Your task to perform on an android device: toggle notification dots Image 0: 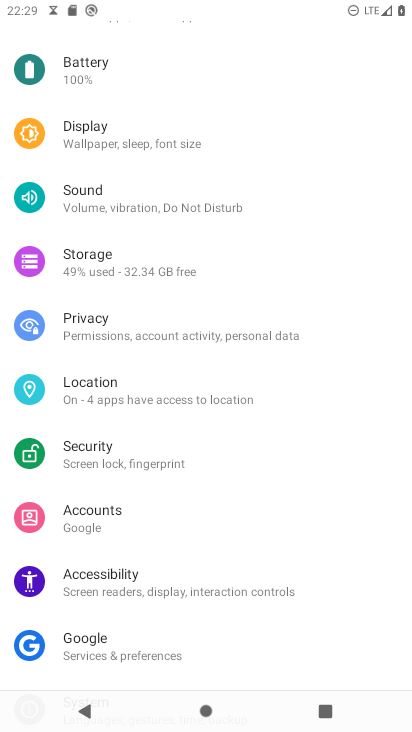
Step 0: press home button
Your task to perform on an android device: toggle notification dots Image 1: 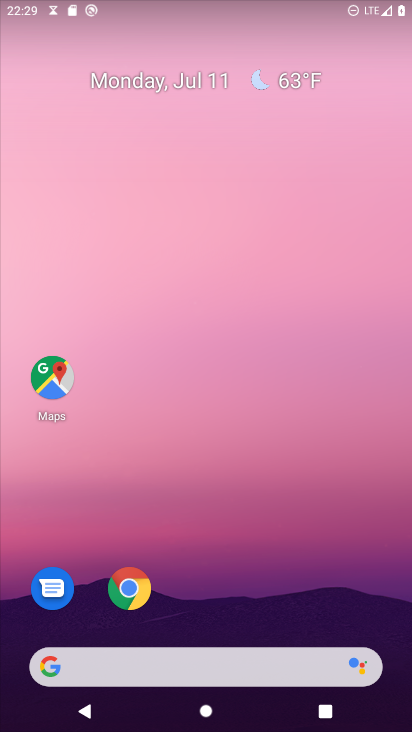
Step 1: drag from (256, 620) to (315, 120)
Your task to perform on an android device: toggle notification dots Image 2: 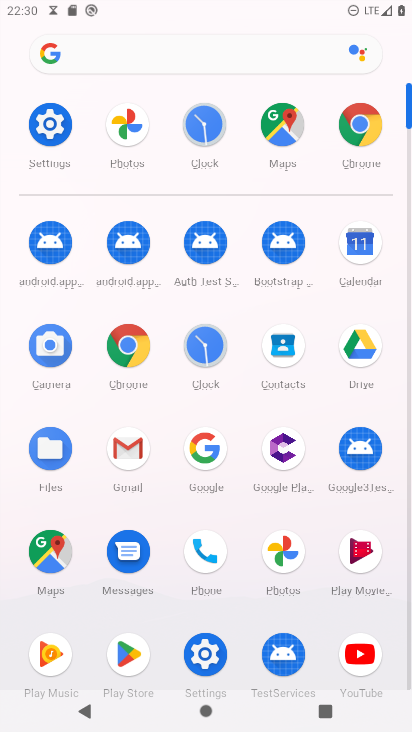
Step 2: click (48, 128)
Your task to perform on an android device: toggle notification dots Image 3: 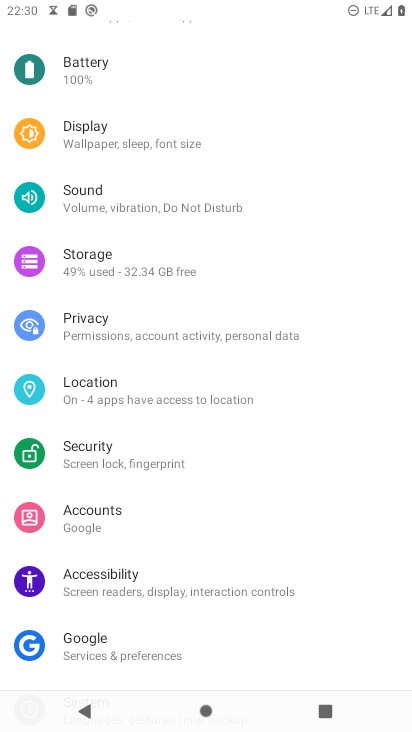
Step 3: drag from (291, 143) to (279, 620)
Your task to perform on an android device: toggle notification dots Image 4: 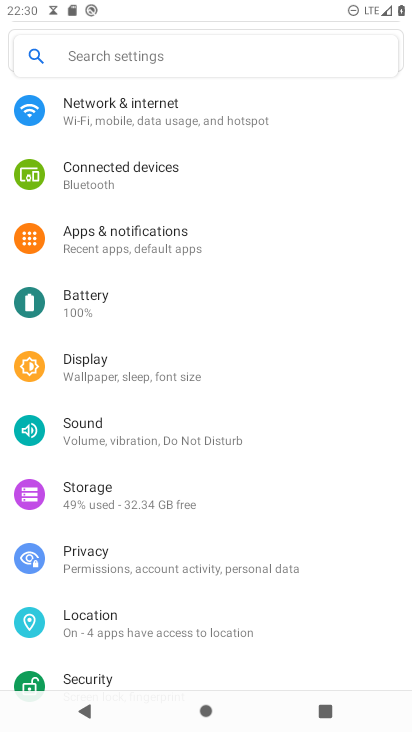
Step 4: click (134, 245)
Your task to perform on an android device: toggle notification dots Image 5: 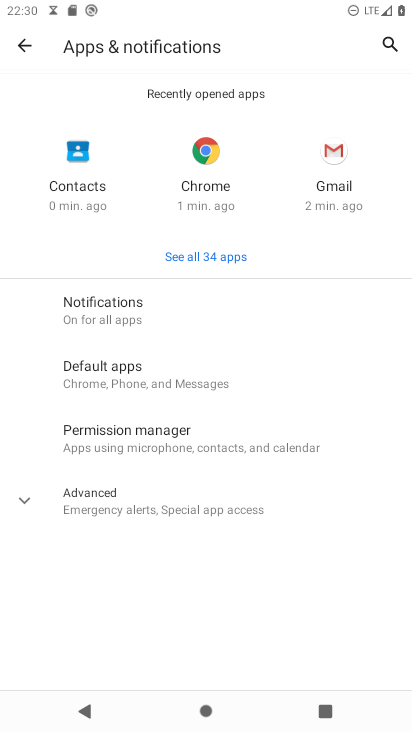
Step 5: click (97, 319)
Your task to perform on an android device: toggle notification dots Image 6: 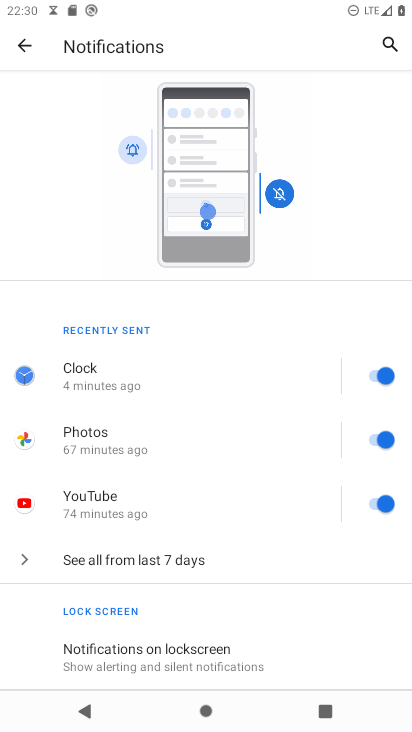
Step 6: drag from (312, 647) to (344, 211)
Your task to perform on an android device: toggle notification dots Image 7: 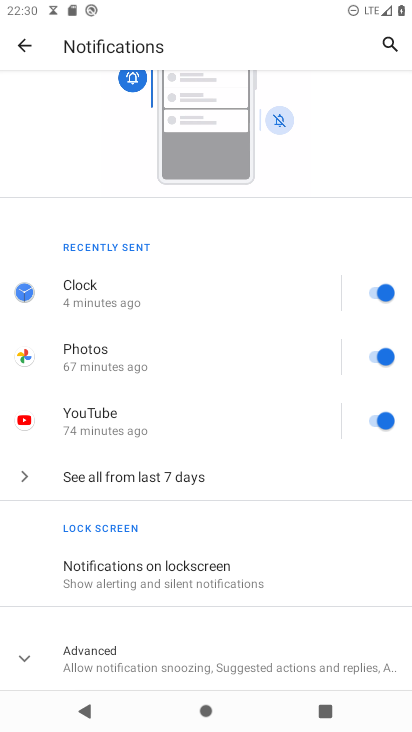
Step 7: click (82, 658)
Your task to perform on an android device: toggle notification dots Image 8: 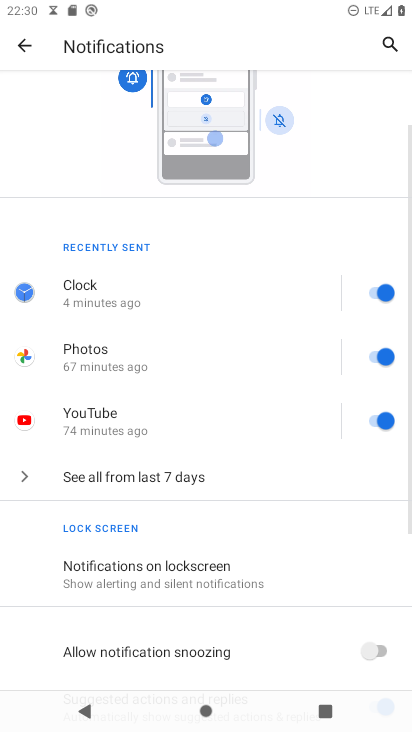
Step 8: drag from (300, 587) to (357, 155)
Your task to perform on an android device: toggle notification dots Image 9: 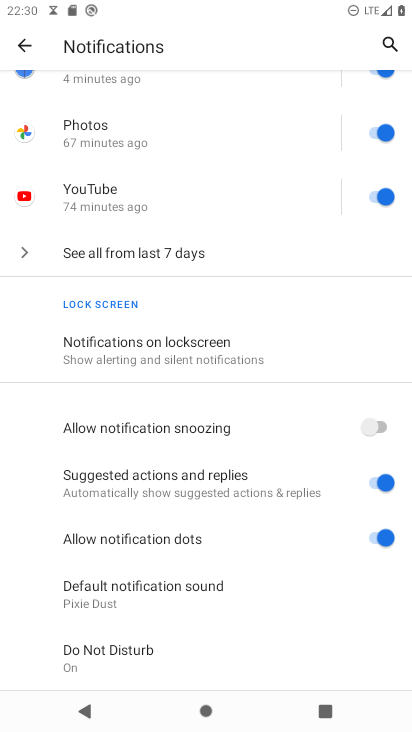
Step 9: click (383, 540)
Your task to perform on an android device: toggle notification dots Image 10: 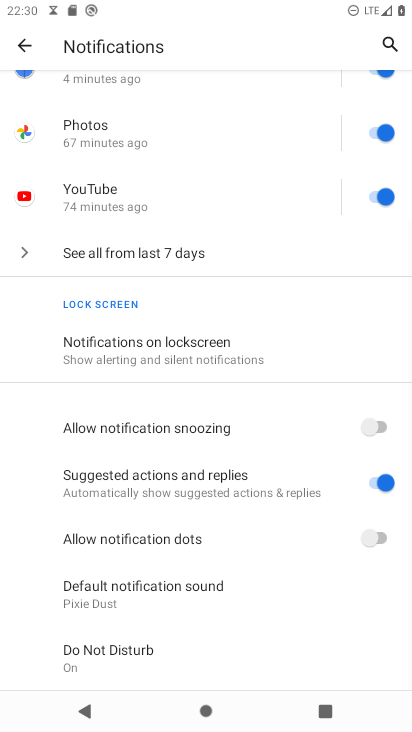
Step 10: task complete